Your task to perform on an android device: Add "razer blackwidow" to the cart on amazon.com Image 0: 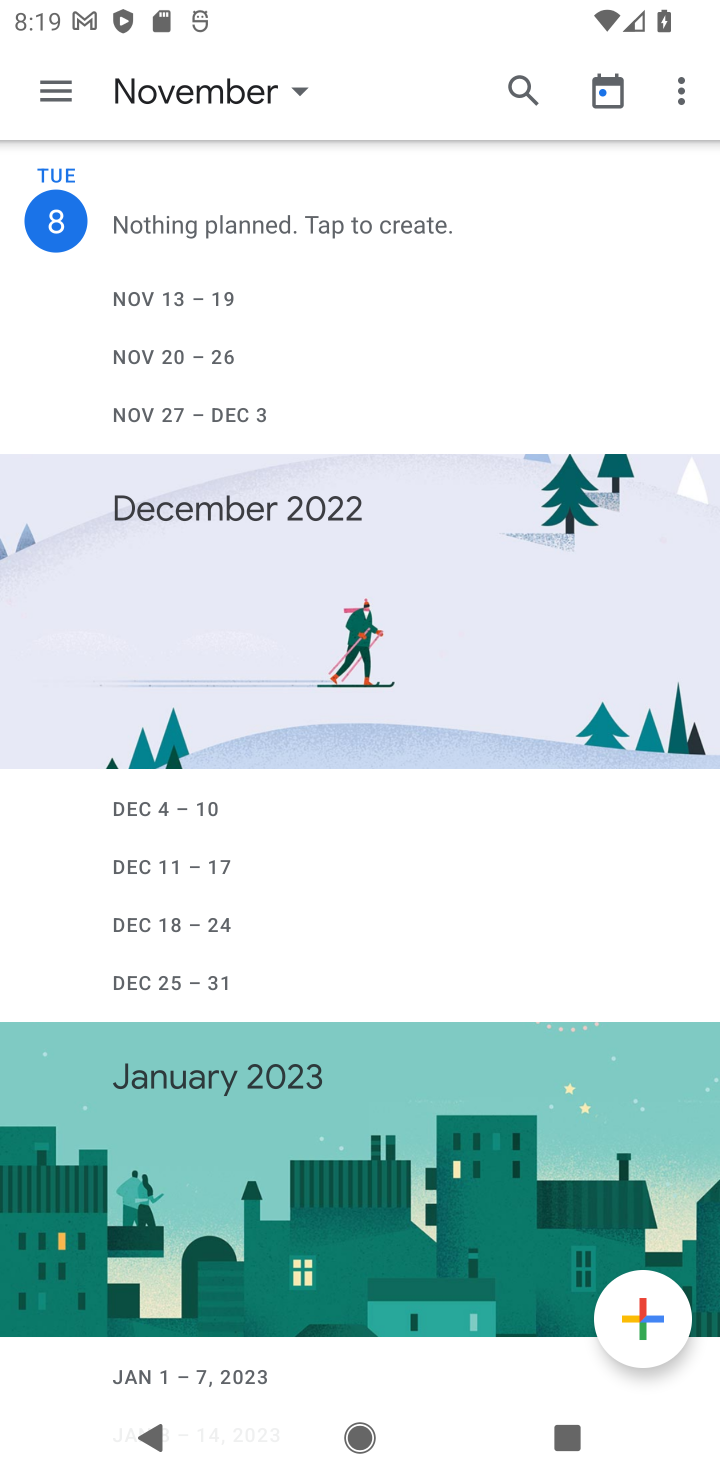
Step 0: press home button
Your task to perform on an android device: Add "razer blackwidow" to the cart on amazon.com Image 1: 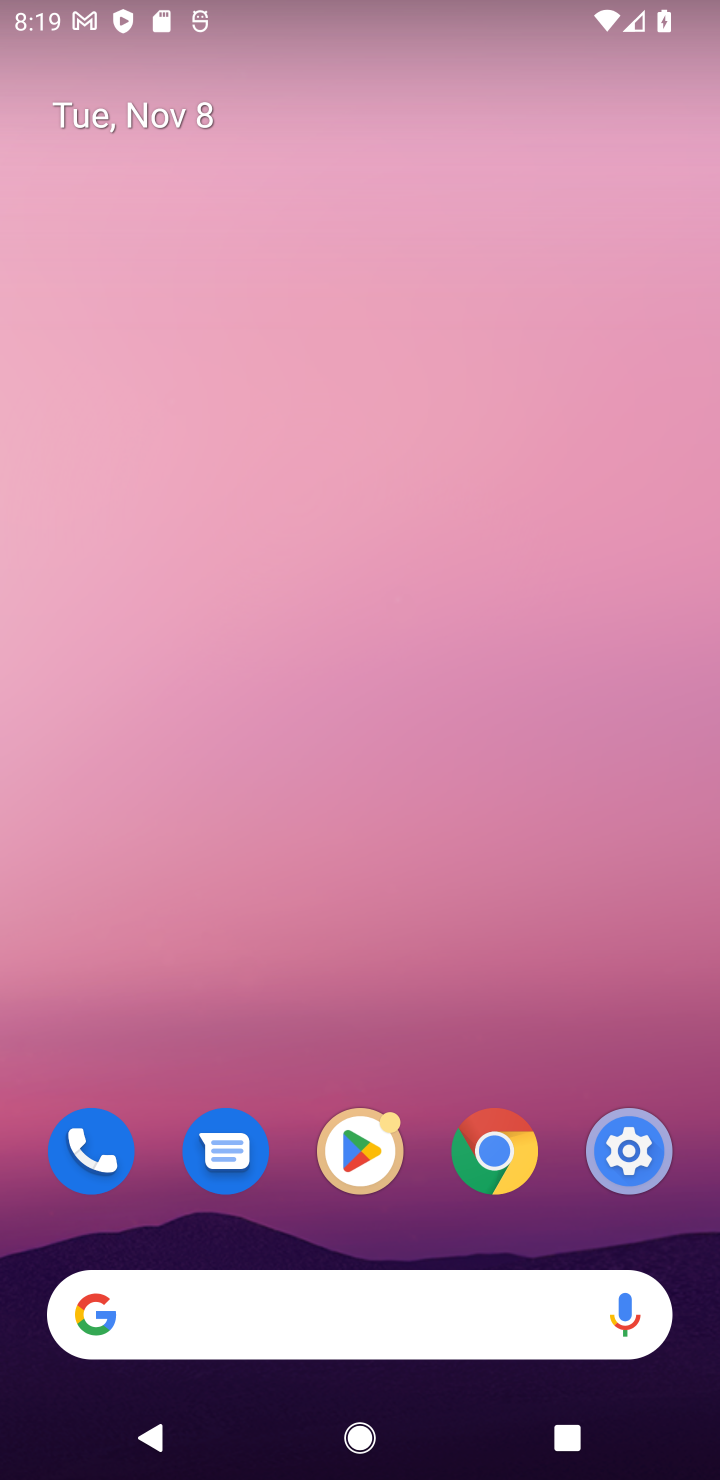
Step 1: click (391, 1296)
Your task to perform on an android device: Add "razer blackwidow" to the cart on amazon.com Image 2: 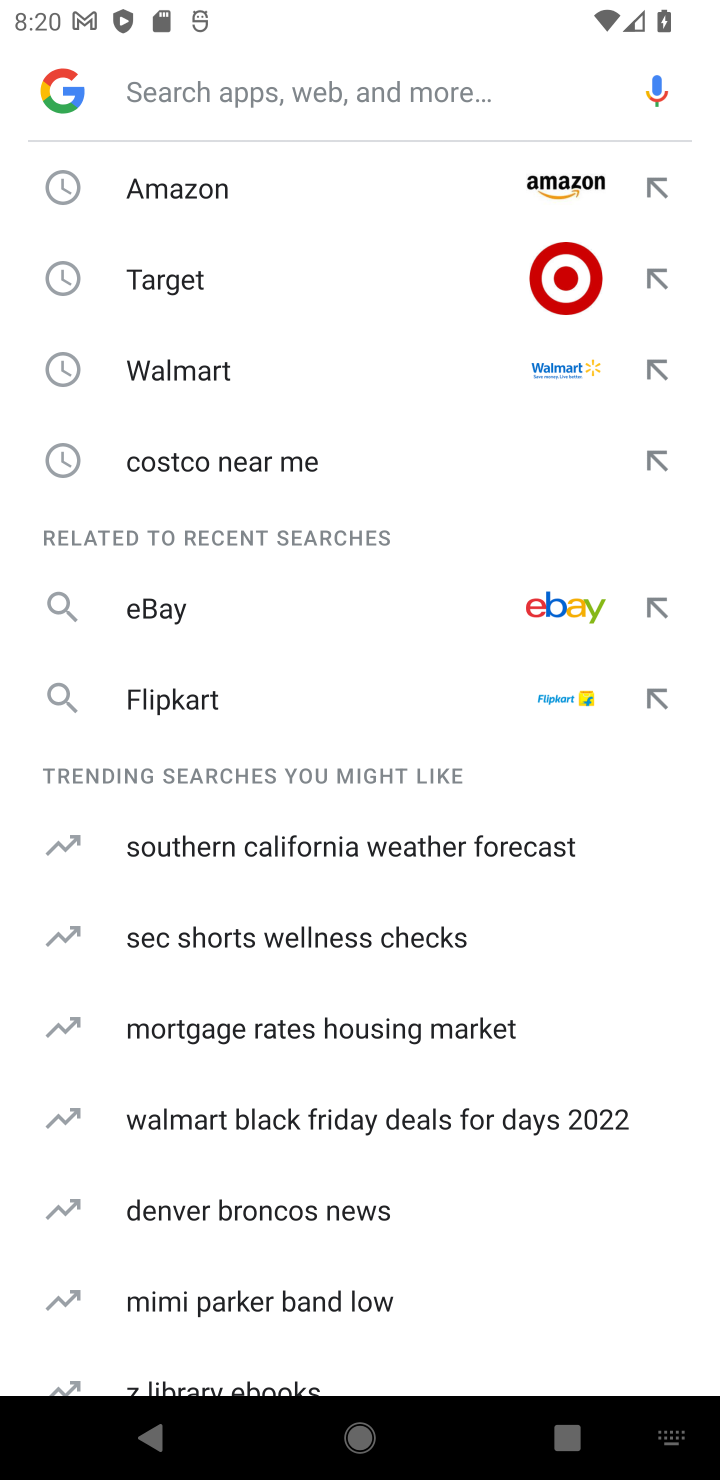
Step 2: type "amazon"
Your task to perform on an android device: Add "razer blackwidow" to the cart on amazon.com Image 3: 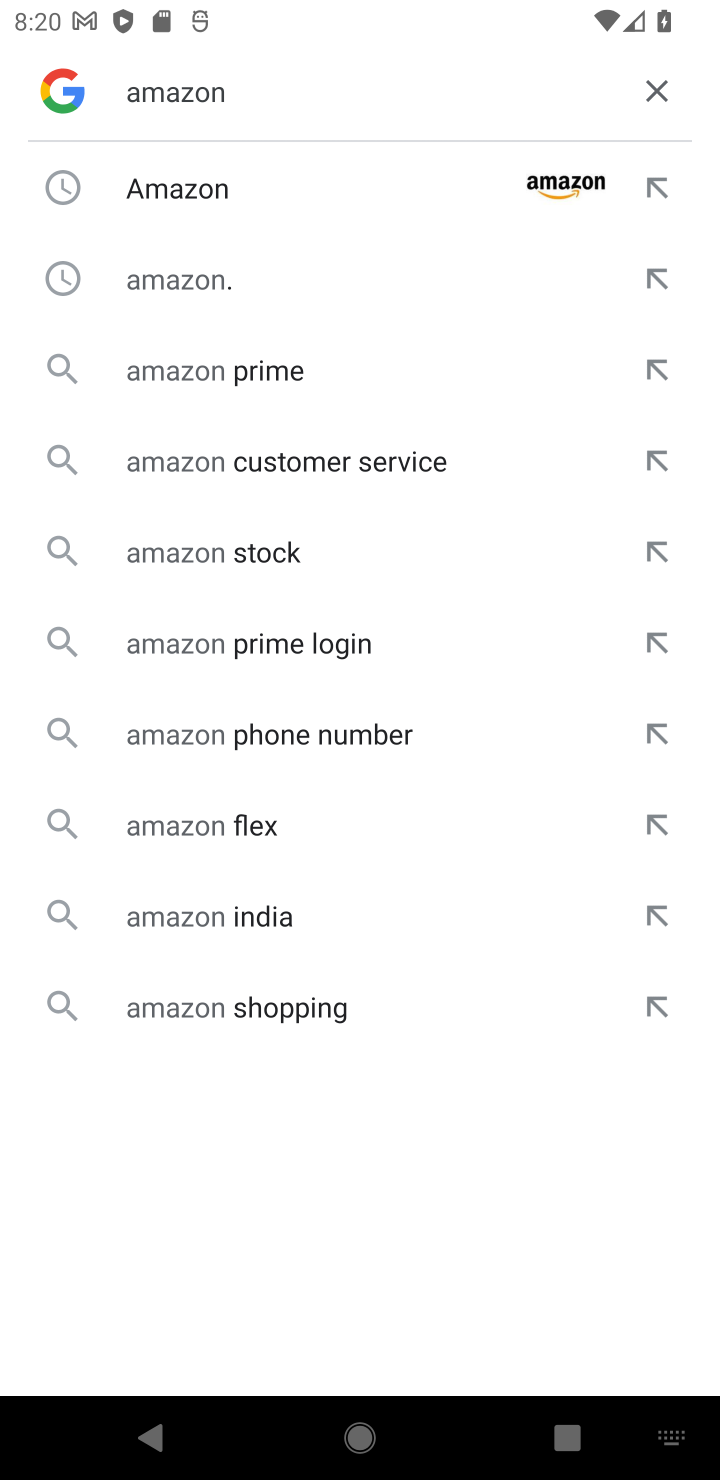
Step 3: click (245, 195)
Your task to perform on an android device: Add "razer blackwidow" to the cart on amazon.com Image 4: 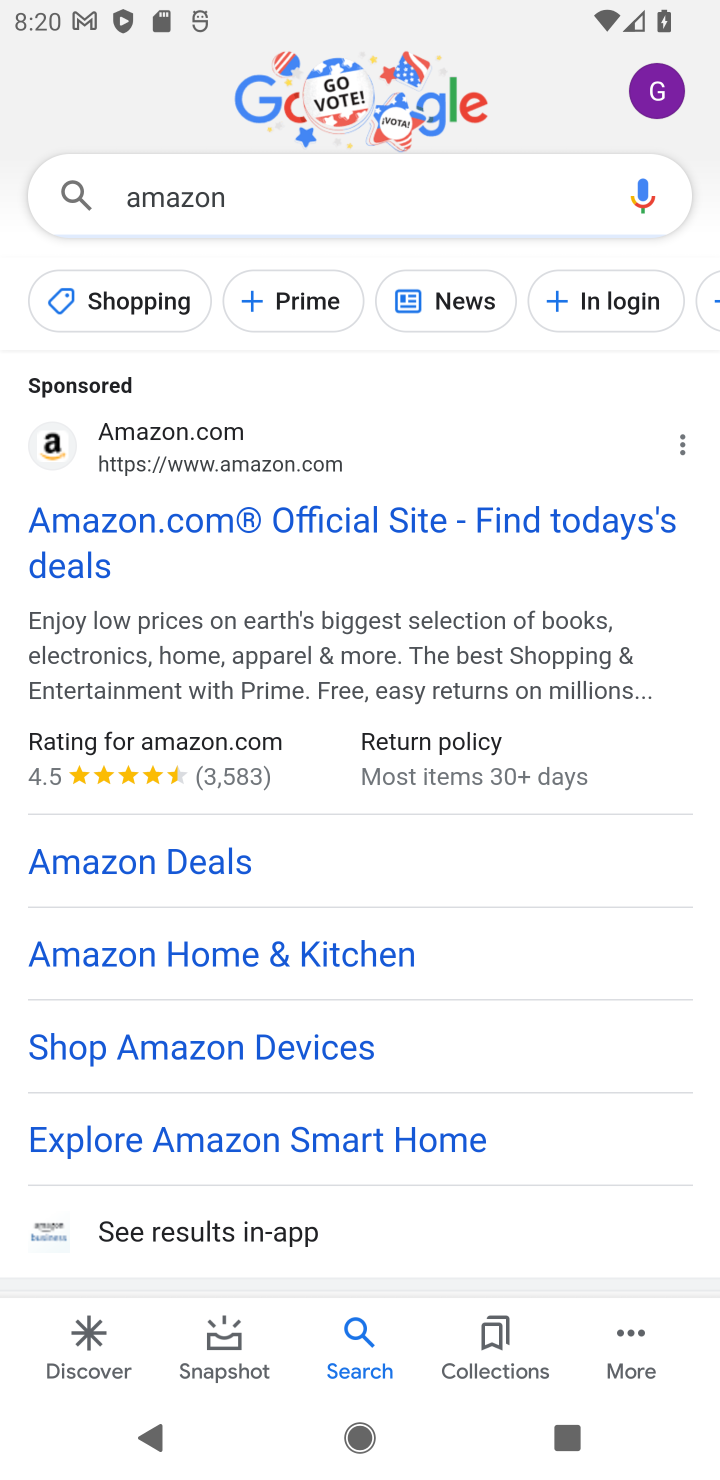
Step 4: click (227, 573)
Your task to perform on an android device: Add "razer blackwidow" to the cart on amazon.com Image 5: 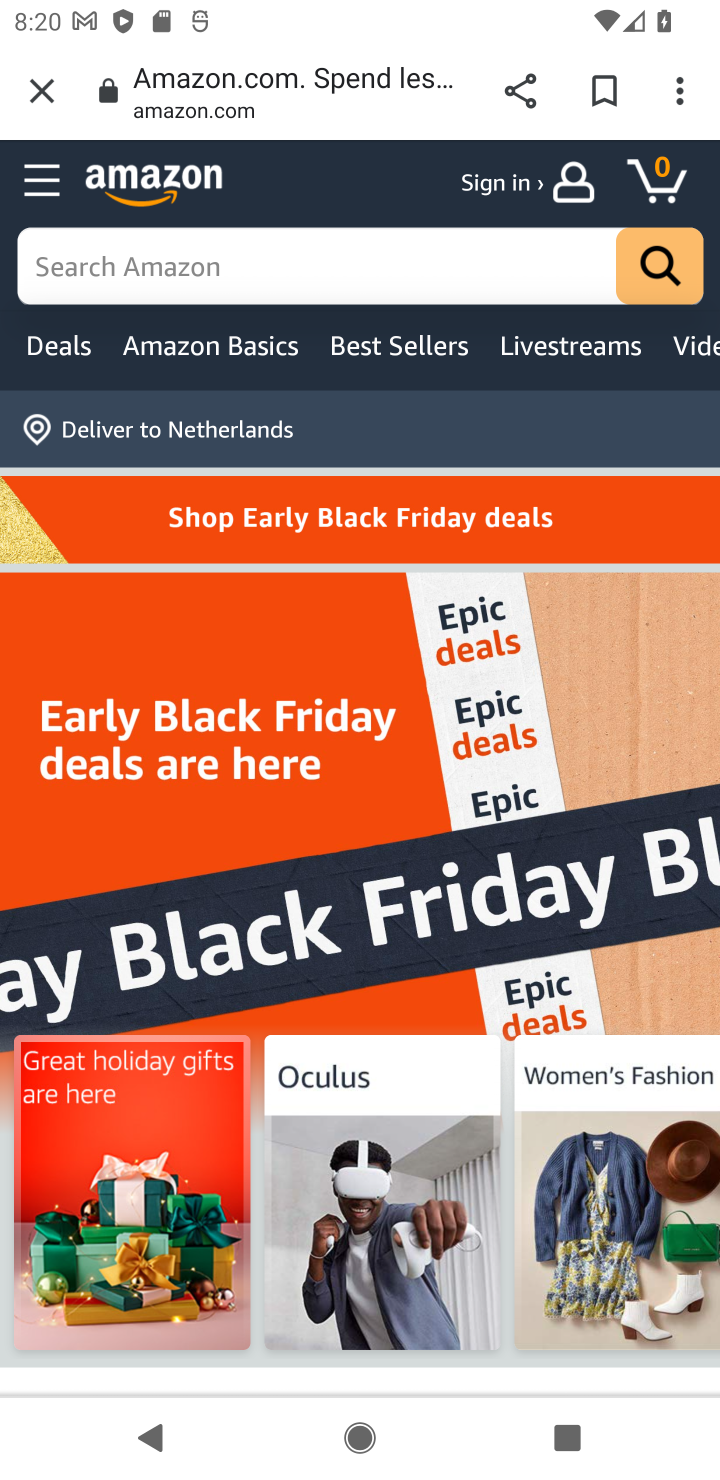
Step 5: task complete